Your task to perform on an android device: Open Google Chrome and open the bookmarks view Image 0: 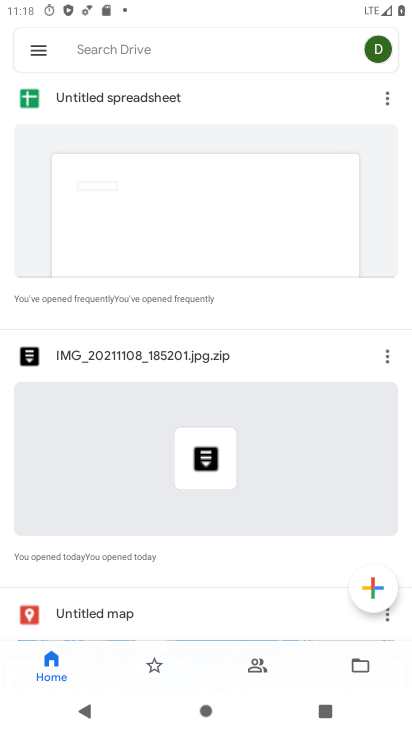
Step 0: press home button
Your task to perform on an android device: Open Google Chrome and open the bookmarks view Image 1: 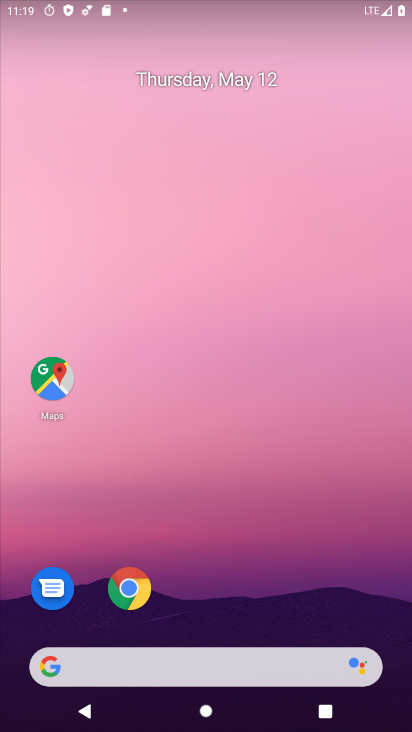
Step 1: click (131, 586)
Your task to perform on an android device: Open Google Chrome and open the bookmarks view Image 2: 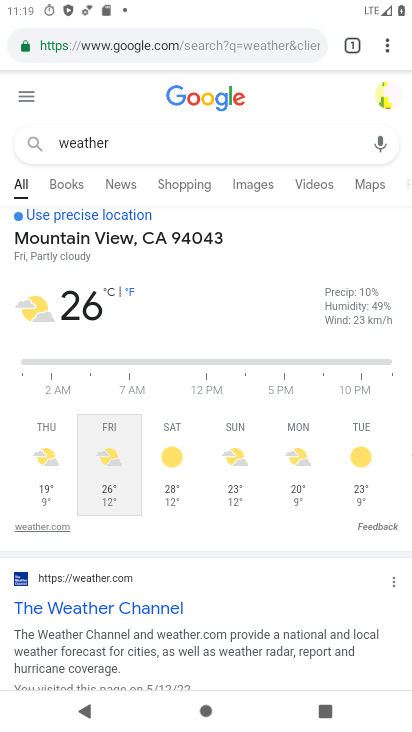
Step 2: task complete